Your task to perform on an android device: Open maps Image 0: 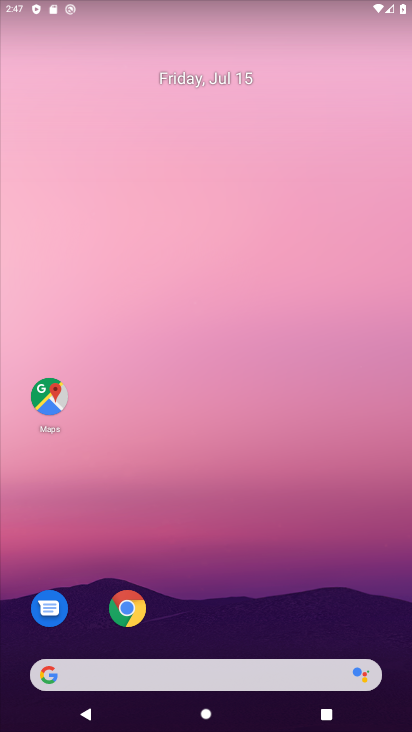
Step 0: click (60, 413)
Your task to perform on an android device: Open maps Image 1: 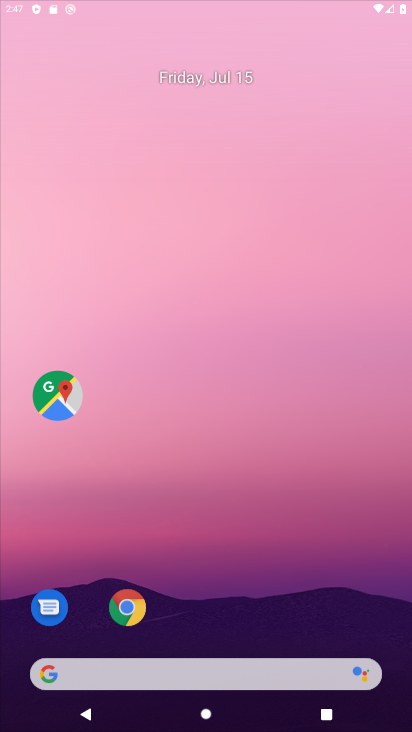
Step 1: click (48, 400)
Your task to perform on an android device: Open maps Image 2: 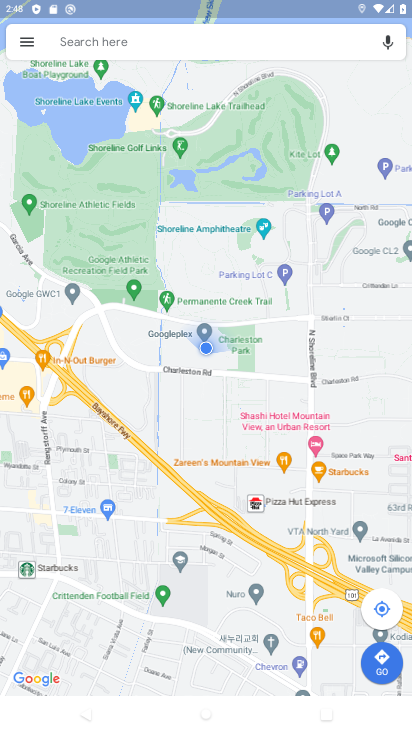
Step 2: task complete